Your task to perform on an android device: open sync settings in chrome Image 0: 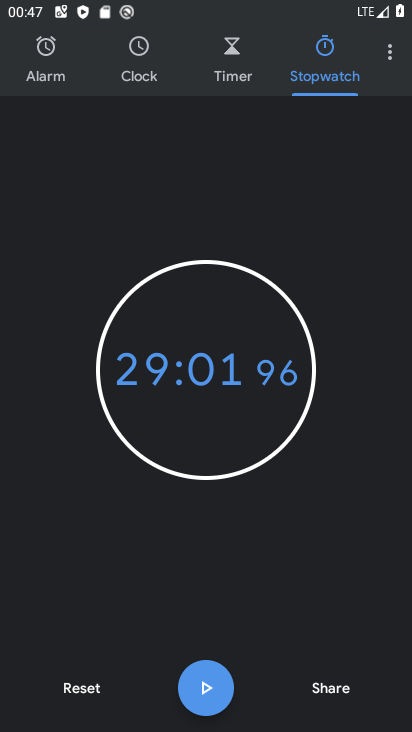
Step 0: press home button
Your task to perform on an android device: open sync settings in chrome Image 1: 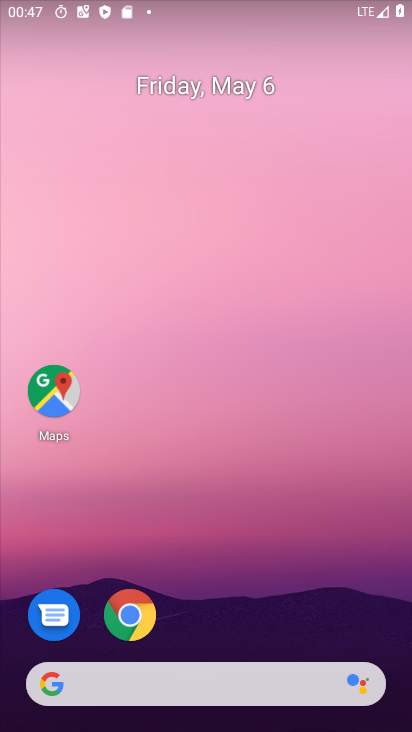
Step 1: click (130, 618)
Your task to perform on an android device: open sync settings in chrome Image 2: 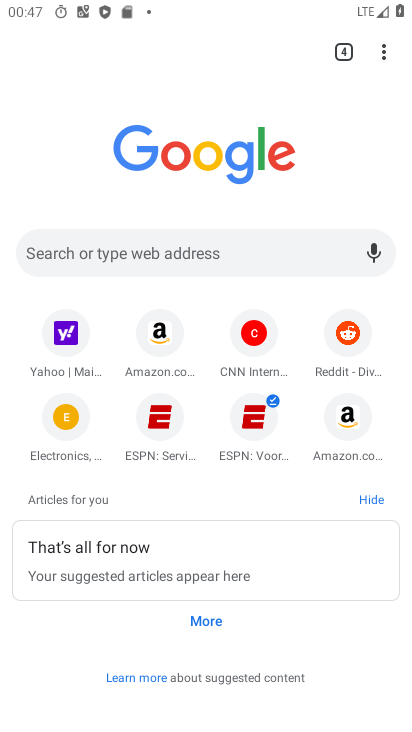
Step 2: click (378, 46)
Your task to perform on an android device: open sync settings in chrome Image 3: 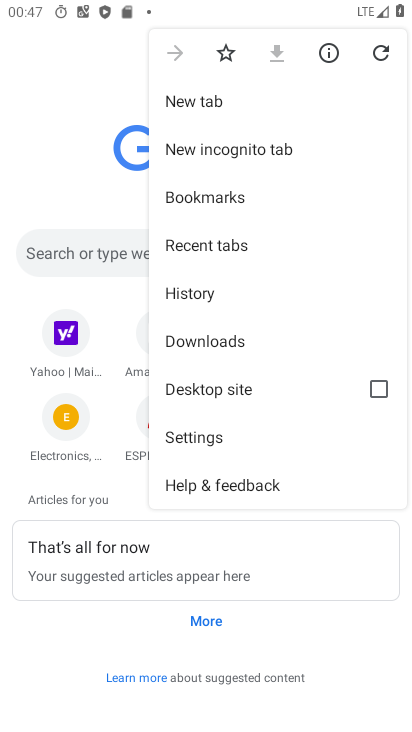
Step 3: click (211, 430)
Your task to perform on an android device: open sync settings in chrome Image 4: 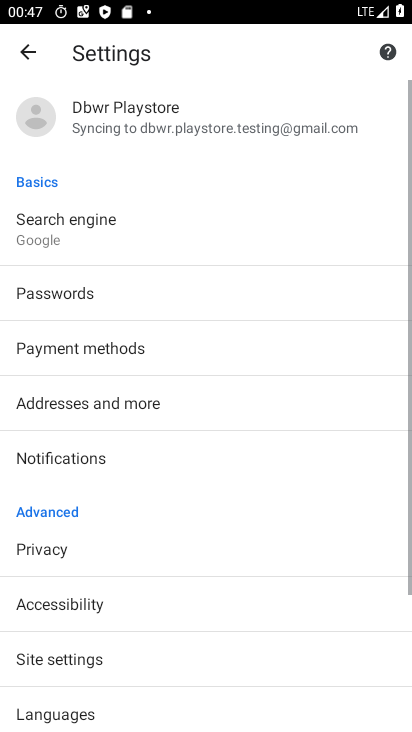
Step 4: drag from (172, 617) to (235, 6)
Your task to perform on an android device: open sync settings in chrome Image 5: 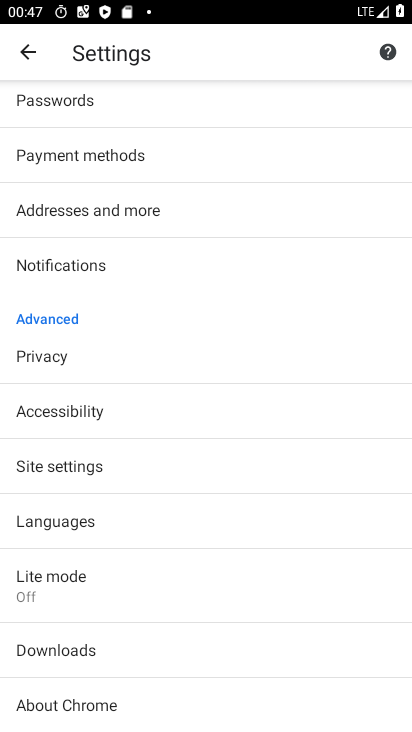
Step 5: click (81, 470)
Your task to perform on an android device: open sync settings in chrome Image 6: 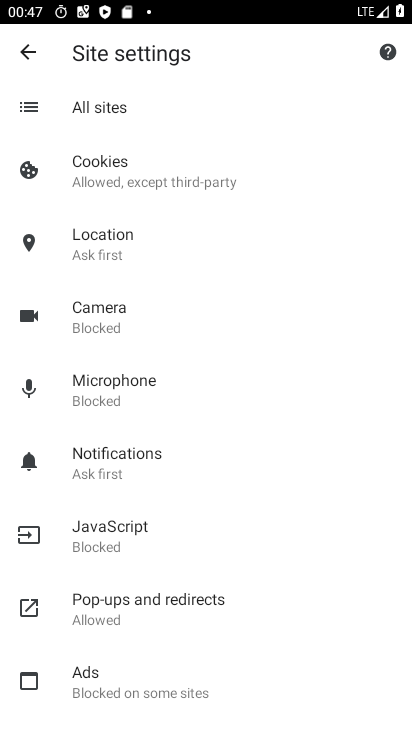
Step 6: drag from (238, 527) to (238, 123)
Your task to perform on an android device: open sync settings in chrome Image 7: 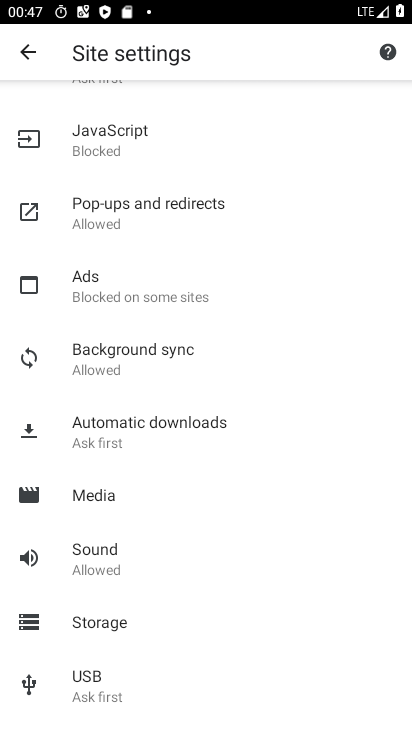
Step 7: click (160, 371)
Your task to perform on an android device: open sync settings in chrome Image 8: 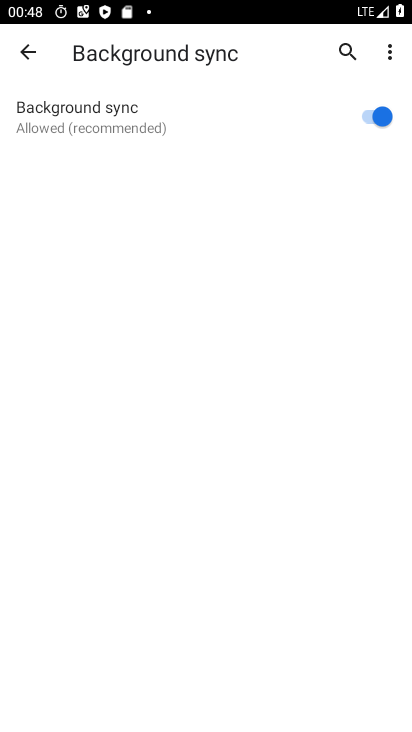
Step 8: task complete